Your task to perform on an android device: check storage Image 0: 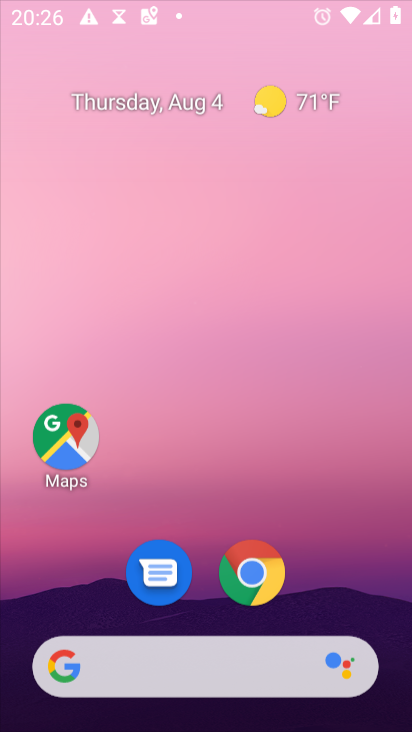
Step 0: click (229, 123)
Your task to perform on an android device: check storage Image 1: 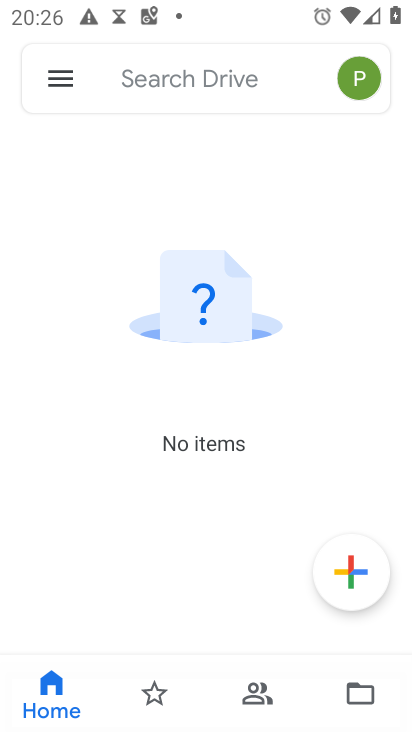
Step 1: press back button
Your task to perform on an android device: check storage Image 2: 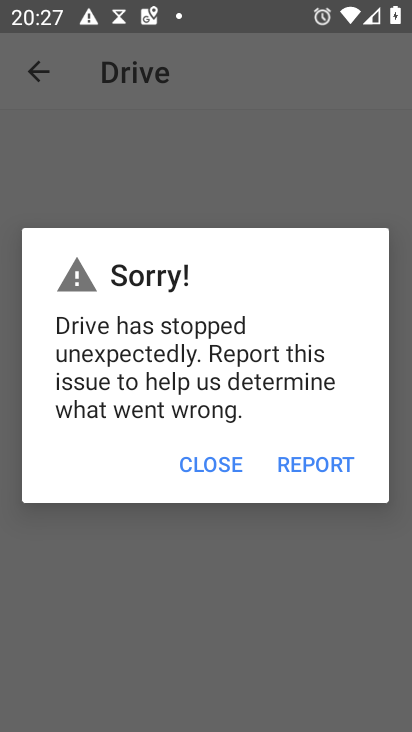
Step 2: press back button
Your task to perform on an android device: check storage Image 3: 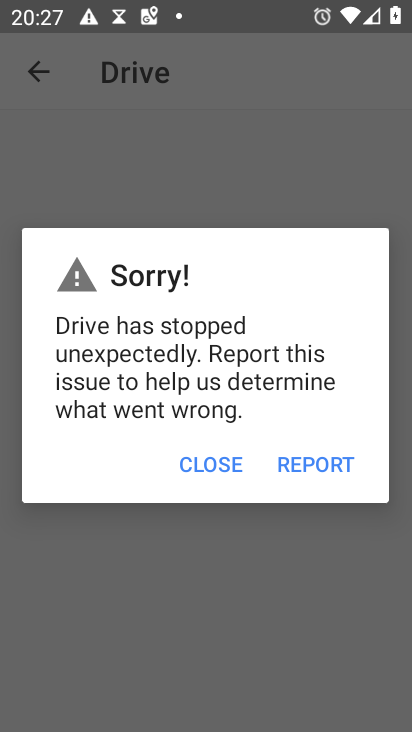
Step 3: press back button
Your task to perform on an android device: check storage Image 4: 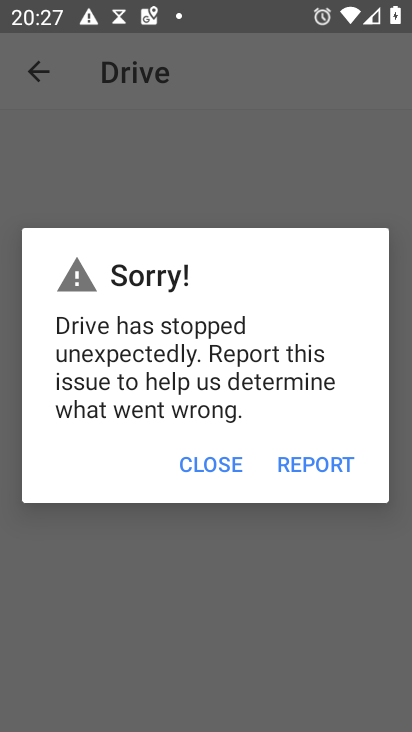
Step 4: press back button
Your task to perform on an android device: check storage Image 5: 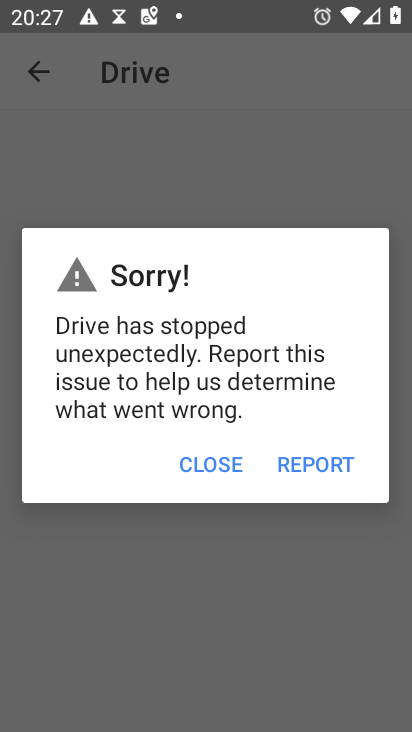
Step 5: press home button
Your task to perform on an android device: check storage Image 6: 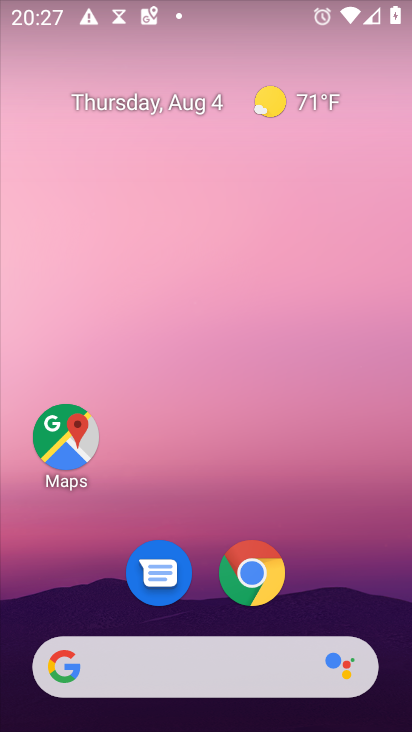
Step 6: drag from (238, 673) to (226, 143)
Your task to perform on an android device: check storage Image 7: 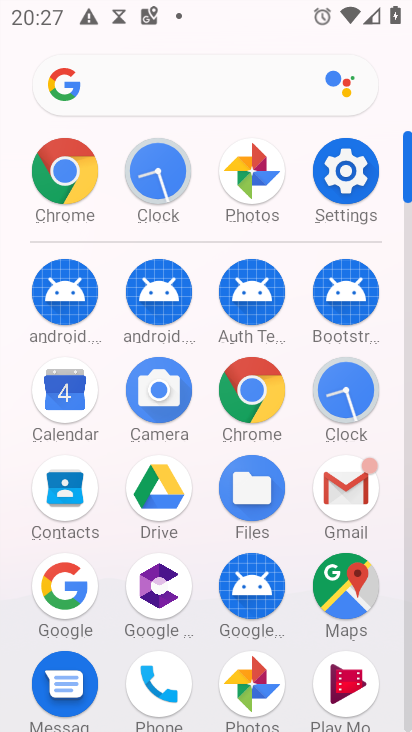
Step 7: click (336, 172)
Your task to perform on an android device: check storage Image 8: 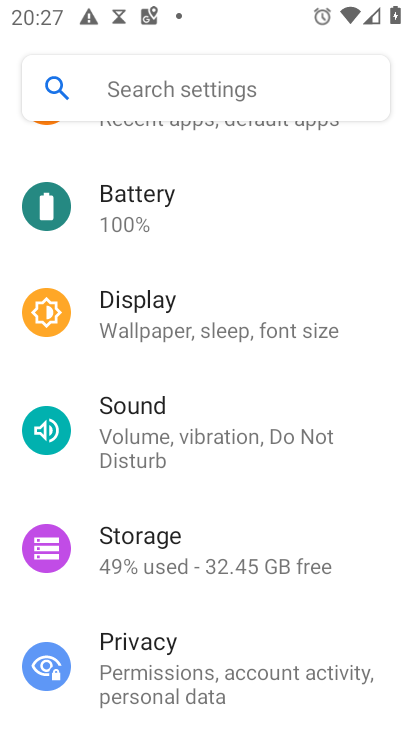
Step 8: click (260, 565)
Your task to perform on an android device: check storage Image 9: 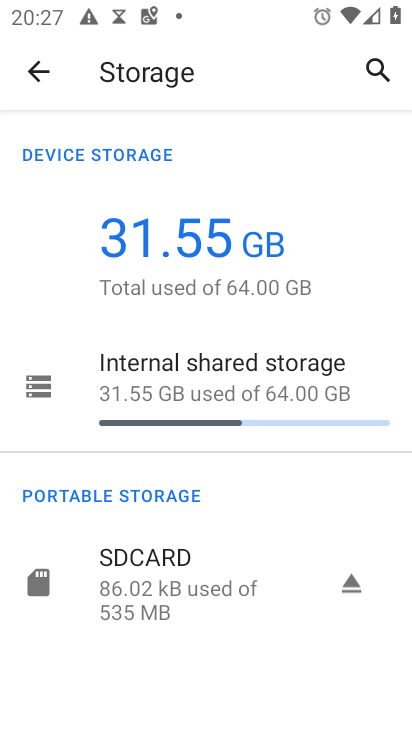
Step 9: click (246, 396)
Your task to perform on an android device: check storage Image 10: 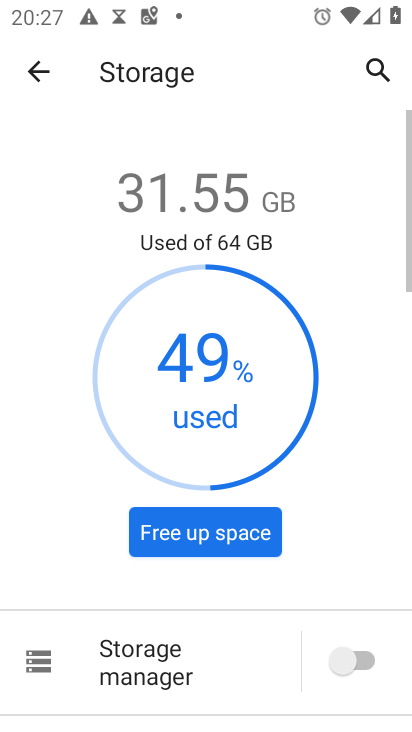
Step 10: task complete